Your task to perform on an android device: change the clock display to digital Image 0: 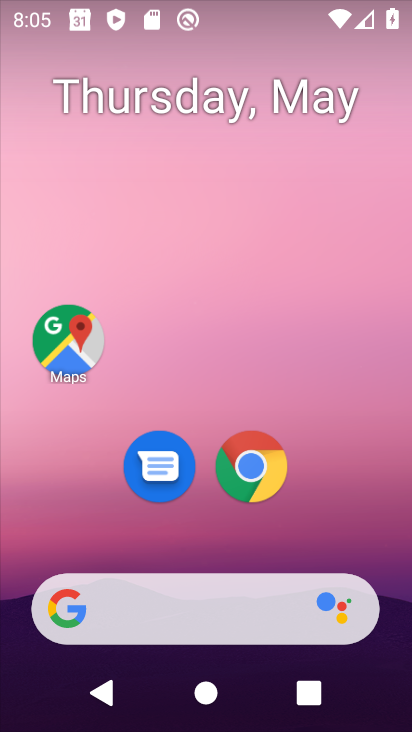
Step 0: drag from (387, 597) to (312, 150)
Your task to perform on an android device: change the clock display to digital Image 1: 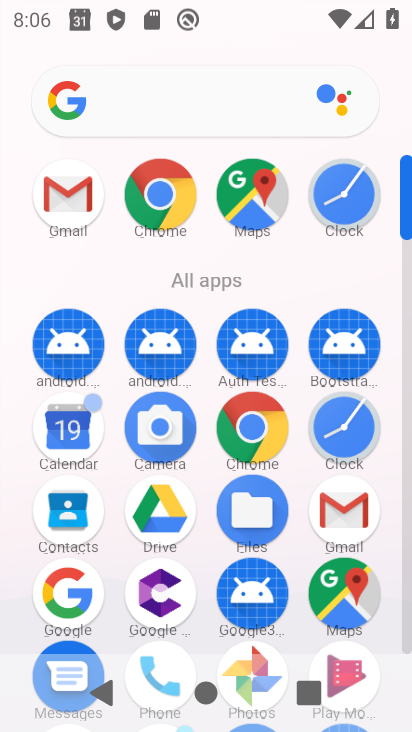
Step 1: click (338, 430)
Your task to perform on an android device: change the clock display to digital Image 2: 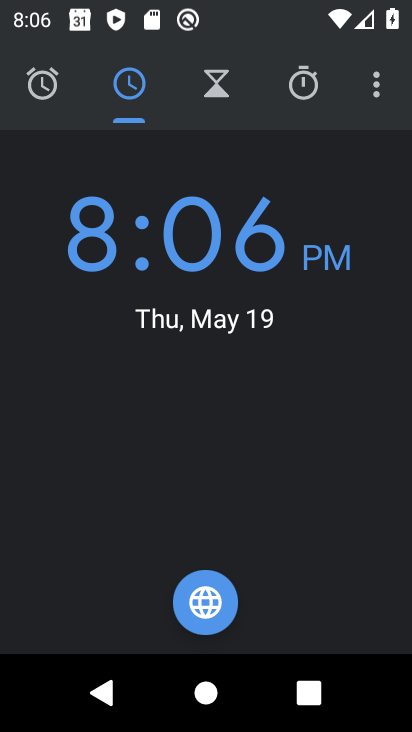
Step 2: click (383, 73)
Your task to perform on an android device: change the clock display to digital Image 3: 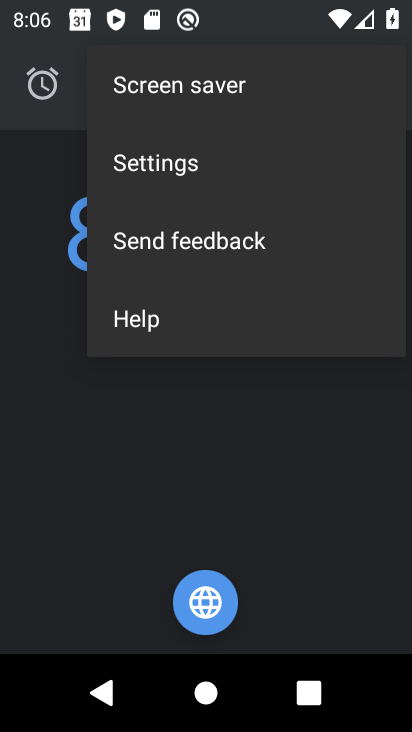
Step 3: click (335, 160)
Your task to perform on an android device: change the clock display to digital Image 4: 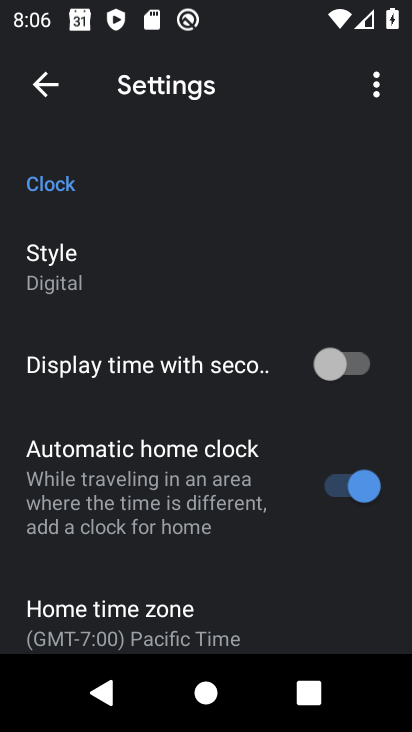
Step 4: click (113, 290)
Your task to perform on an android device: change the clock display to digital Image 5: 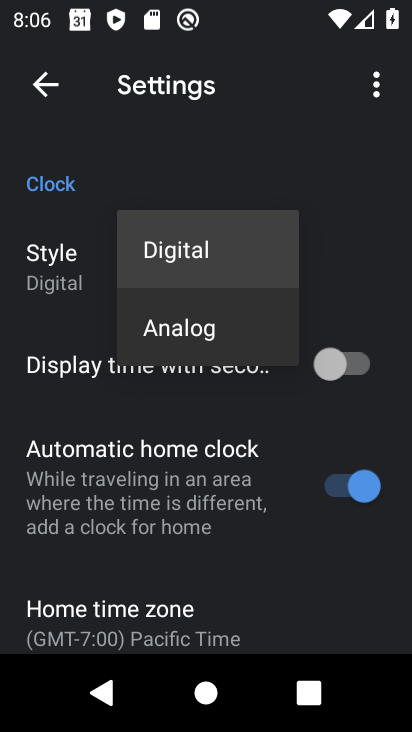
Step 5: task complete